Your task to perform on an android device: add a contact Image 0: 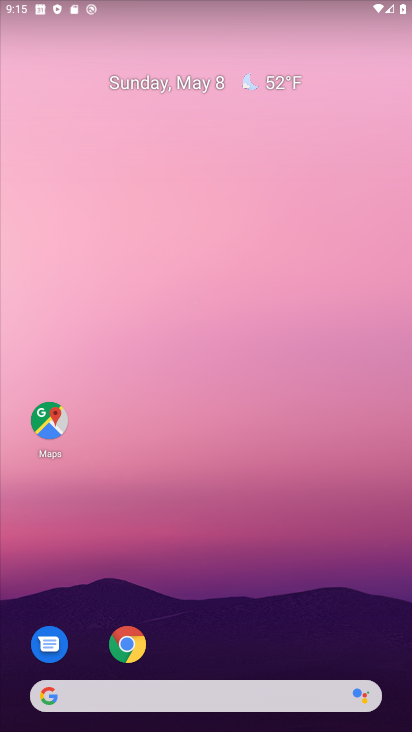
Step 0: click (242, 119)
Your task to perform on an android device: add a contact Image 1: 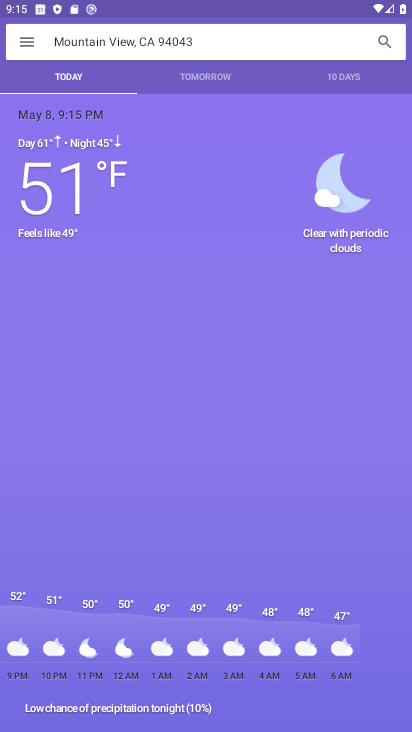
Step 1: press home button
Your task to perform on an android device: add a contact Image 2: 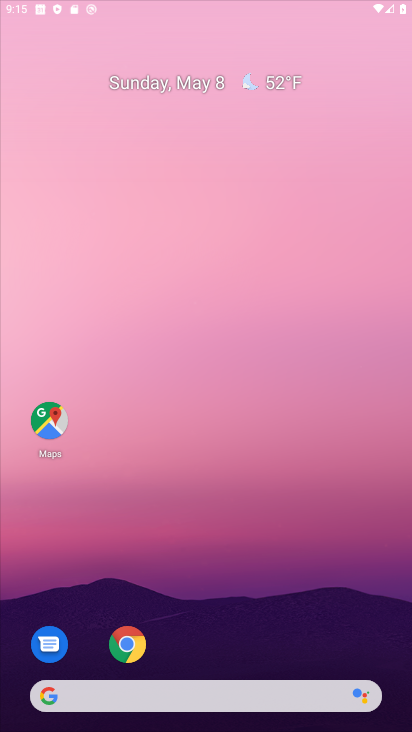
Step 2: drag from (175, 638) to (234, 96)
Your task to perform on an android device: add a contact Image 3: 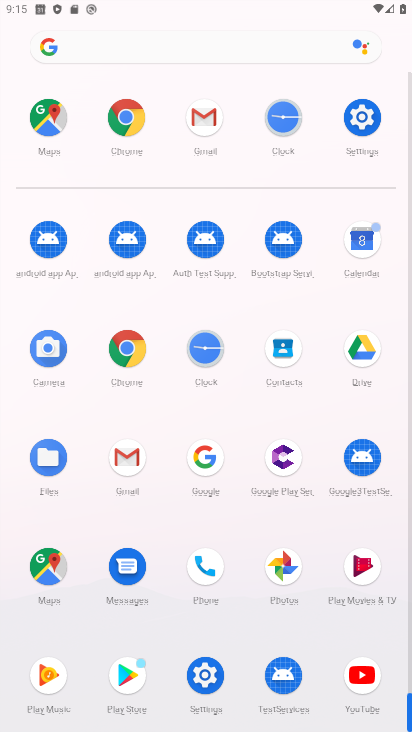
Step 3: click (279, 353)
Your task to perform on an android device: add a contact Image 4: 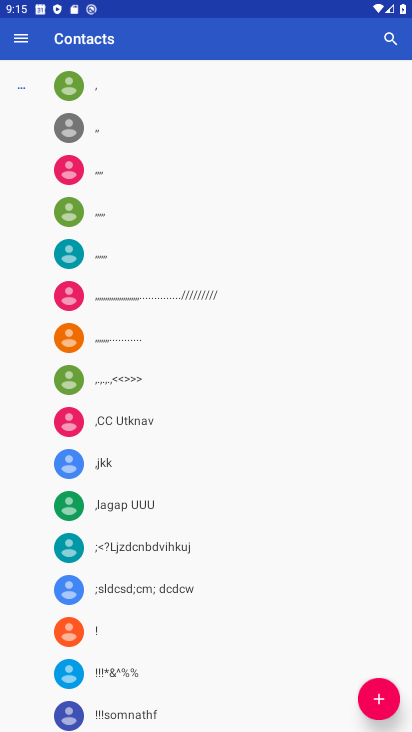
Step 4: click (368, 691)
Your task to perform on an android device: add a contact Image 5: 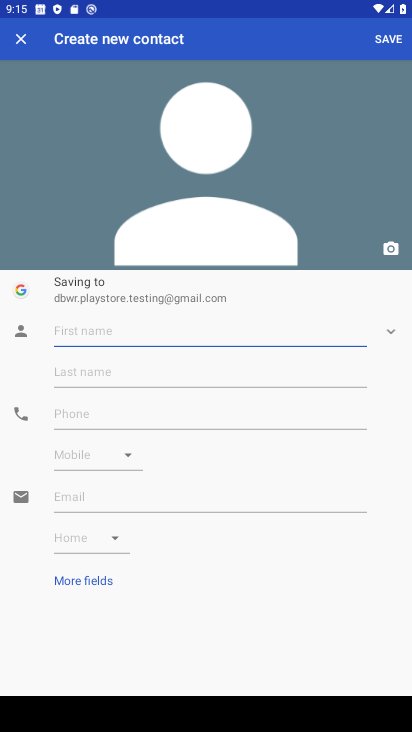
Step 5: click (138, 330)
Your task to perform on an android device: add a contact Image 6: 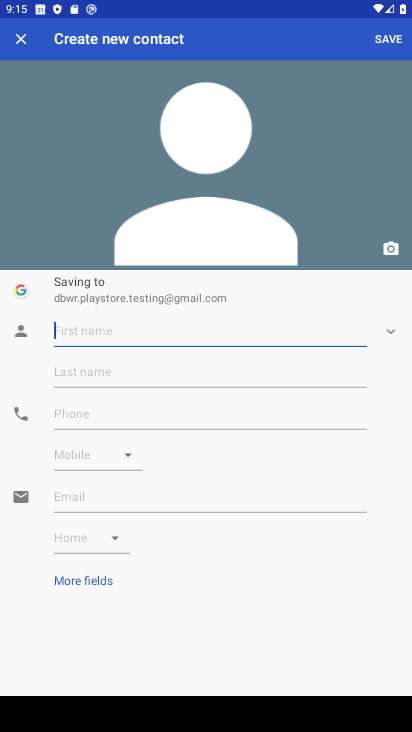
Step 6: type "mahaj"
Your task to perform on an android device: add a contact Image 7: 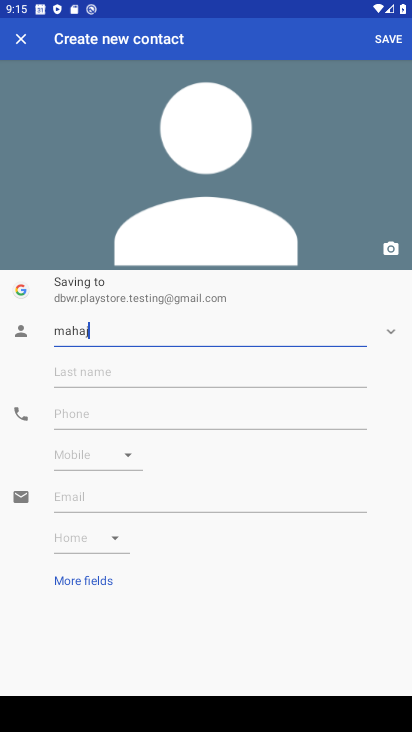
Step 7: click (381, 34)
Your task to perform on an android device: add a contact Image 8: 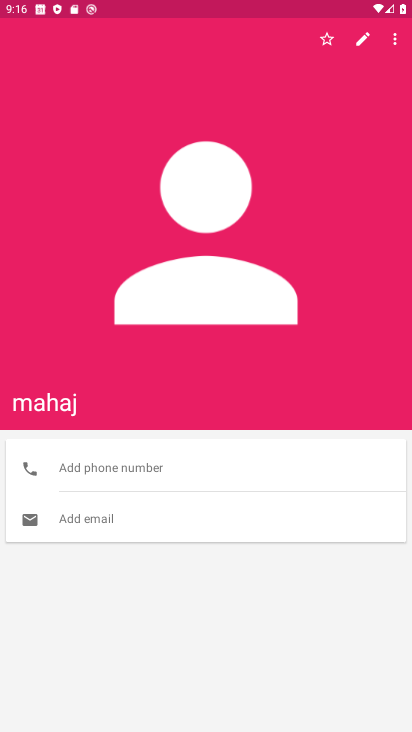
Step 8: task complete